Your task to perform on an android device: turn off wifi Image 0: 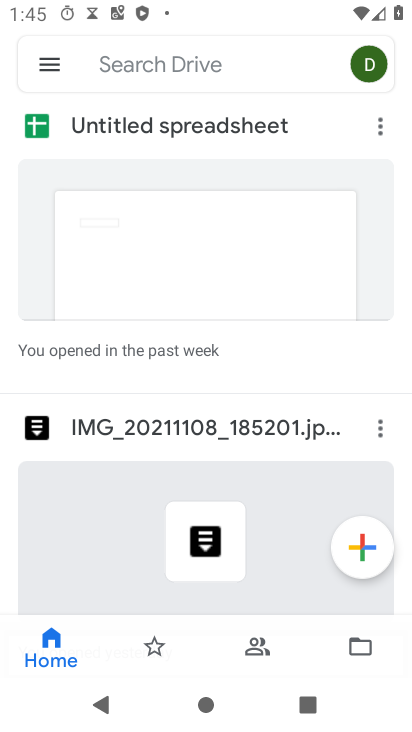
Step 0: press home button
Your task to perform on an android device: turn off wifi Image 1: 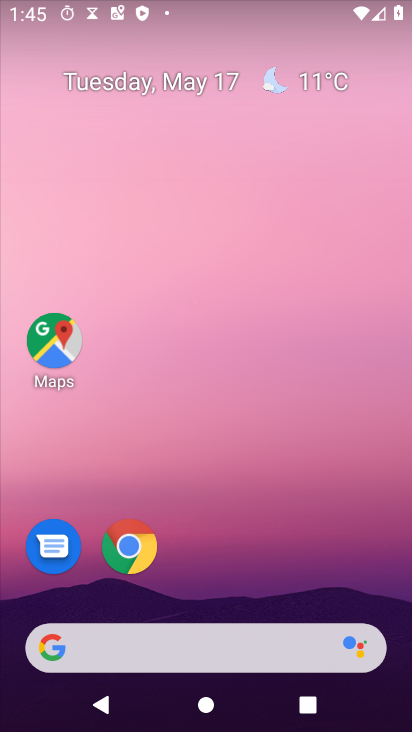
Step 1: drag from (150, 616) to (292, 41)
Your task to perform on an android device: turn off wifi Image 2: 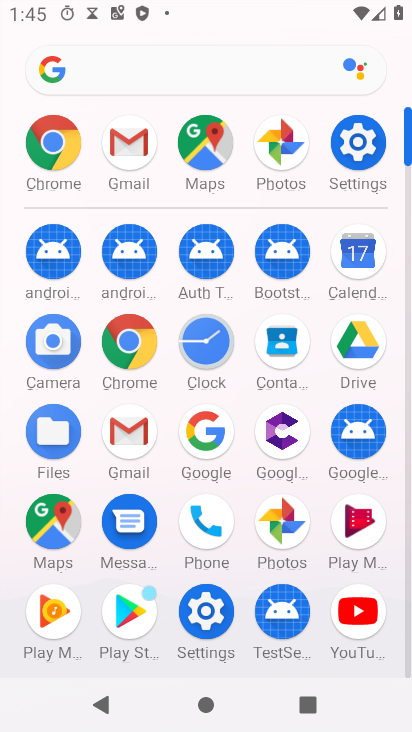
Step 2: click (343, 148)
Your task to perform on an android device: turn off wifi Image 3: 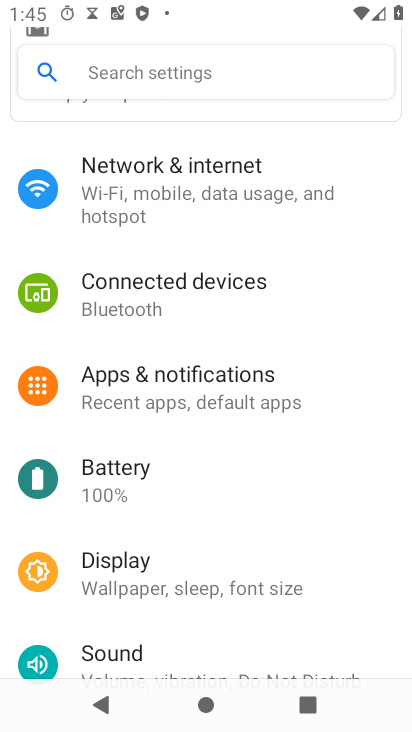
Step 3: click (217, 174)
Your task to perform on an android device: turn off wifi Image 4: 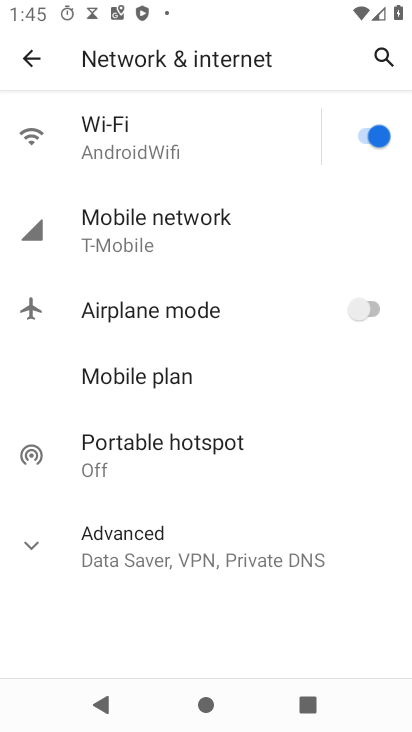
Step 4: click (366, 128)
Your task to perform on an android device: turn off wifi Image 5: 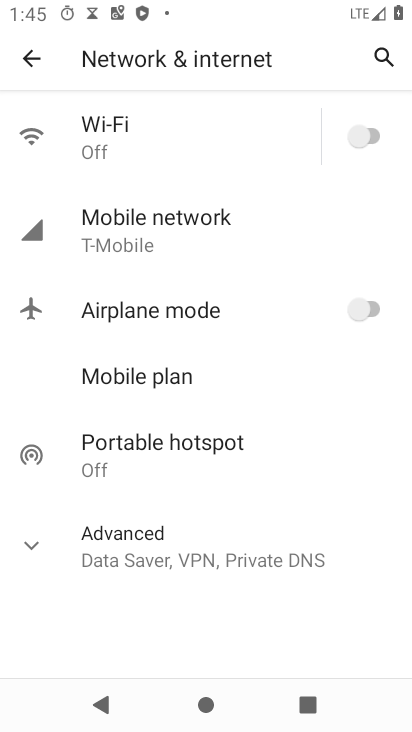
Step 5: task complete